Your task to perform on an android device: Open calendar and show me the second week of next month Image 0: 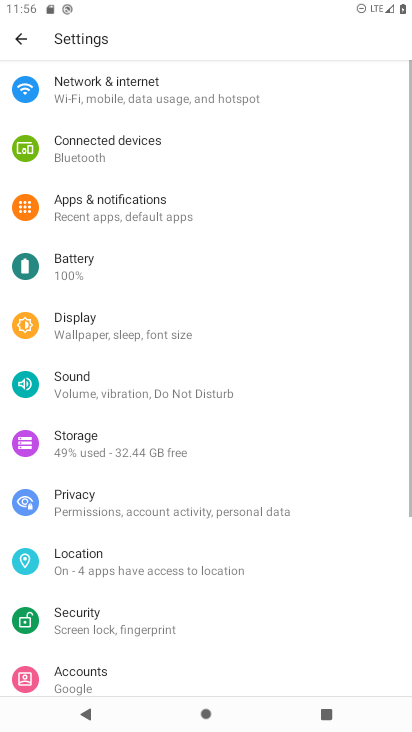
Step 0: press home button
Your task to perform on an android device: Open calendar and show me the second week of next month Image 1: 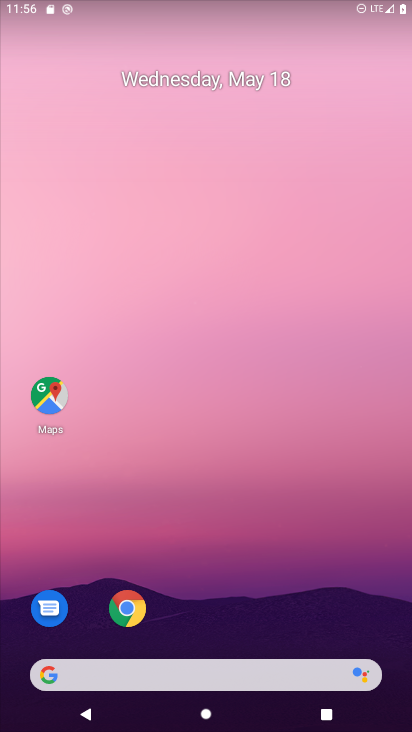
Step 1: drag from (195, 633) to (186, 118)
Your task to perform on an android device: Open calendar and show me the second week of next month Image 2: 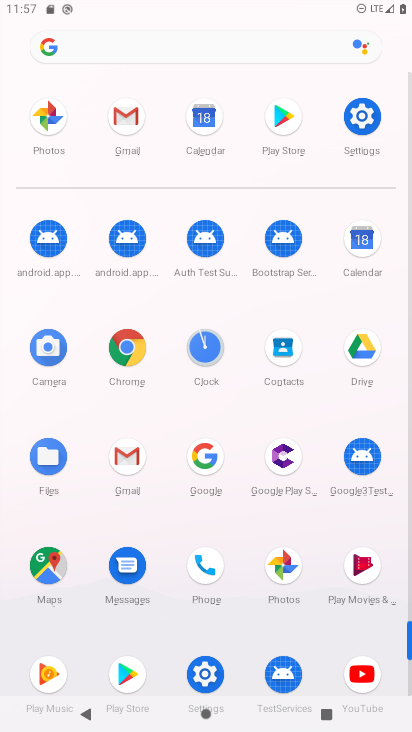
Step 2: click (369, 243)
Your task to perform on an android device: Open calendar and show me the second week of next month Image 3: 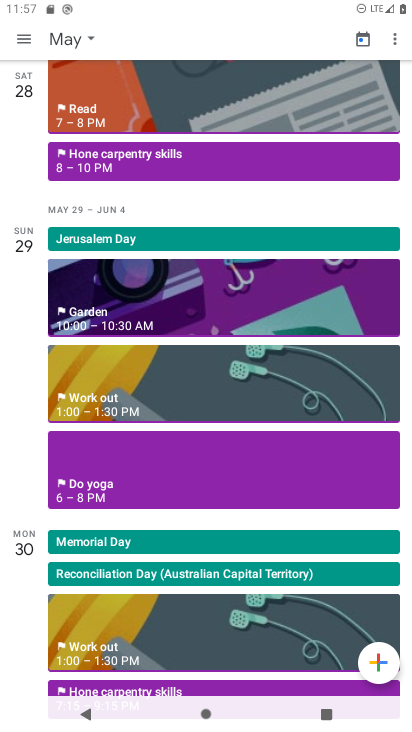
Step 3: click (80, 48)
Your task to perform on an android device: Open calendar and show me the second week of next month Image 4: 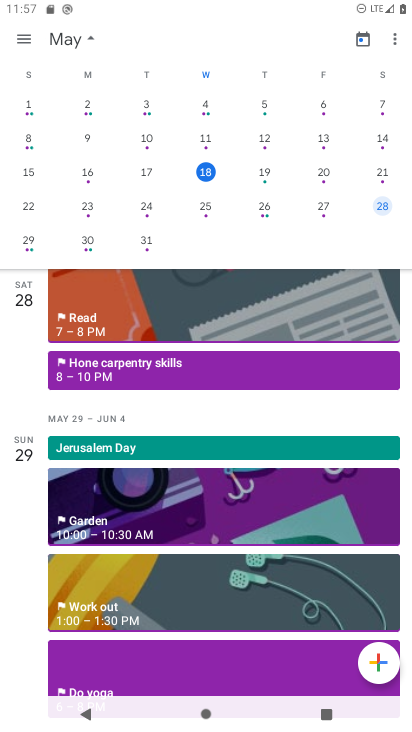
Step 4: drag from (358, 170) to (20, 164)
Your task to perform on an android device: Open calendar and show me the second week of next month Image 5: 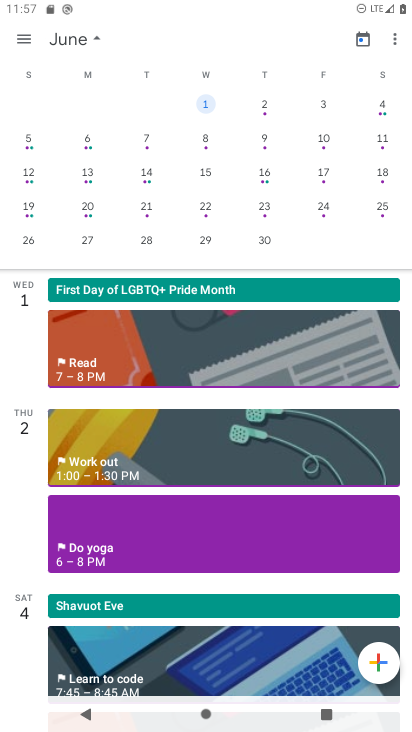
Step 5: click (29, 139)
Your task to perform on an android device: Open calendar and show me the second week of next month Image 6: 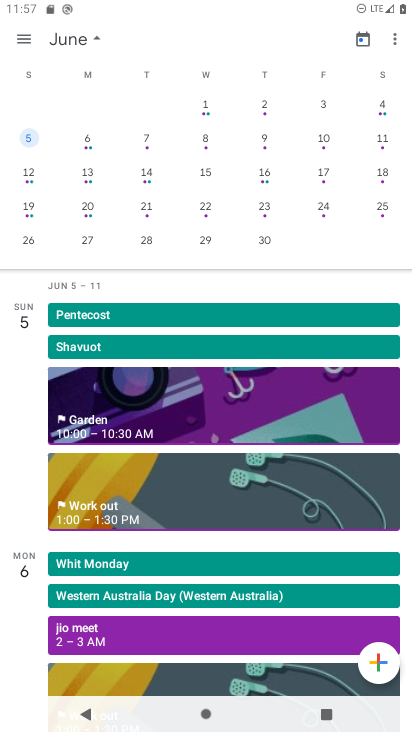
Step 6: click (23, 34)
Your task to perform on an android device: Open calendar and show me the second week of next month Image 7: 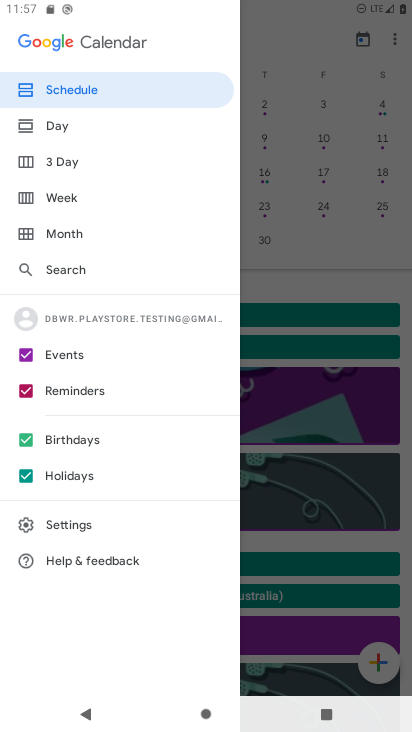
Step 7: click (50, 198)
Your task to perform on an android device: Open calendar and show me the second week of next month Image 8: 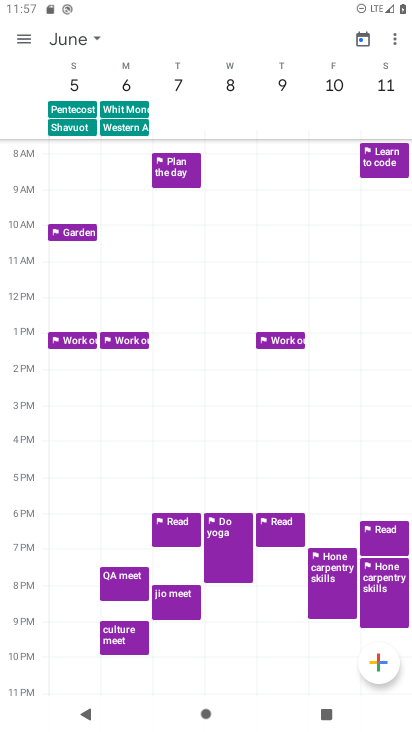
Step 8: task complete